Your task to perform on an android device: turn off airplane mode Image 0: 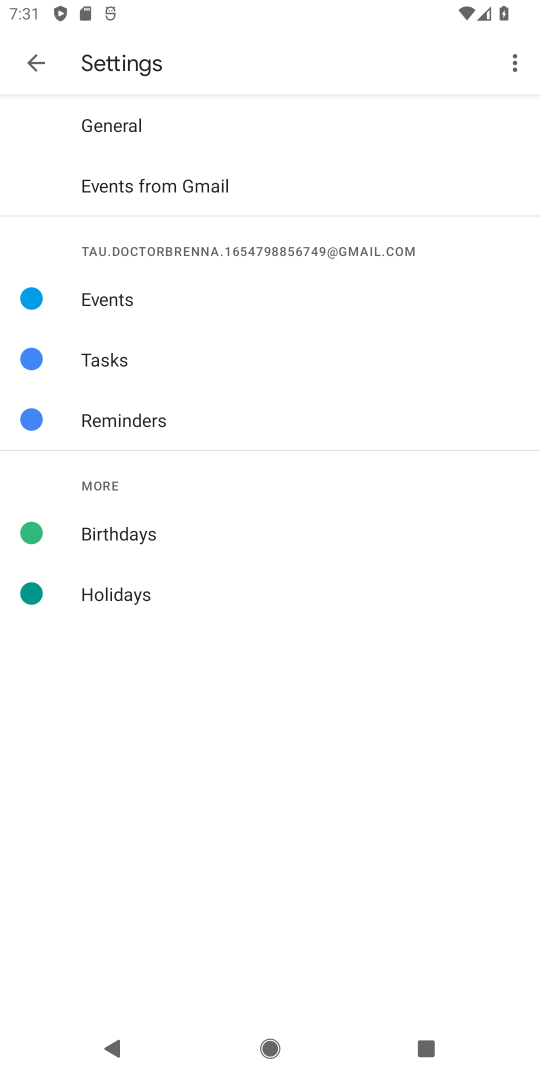
Step 0: press home button
Your task to perform on an android device: turn off airplane mode Image 1: 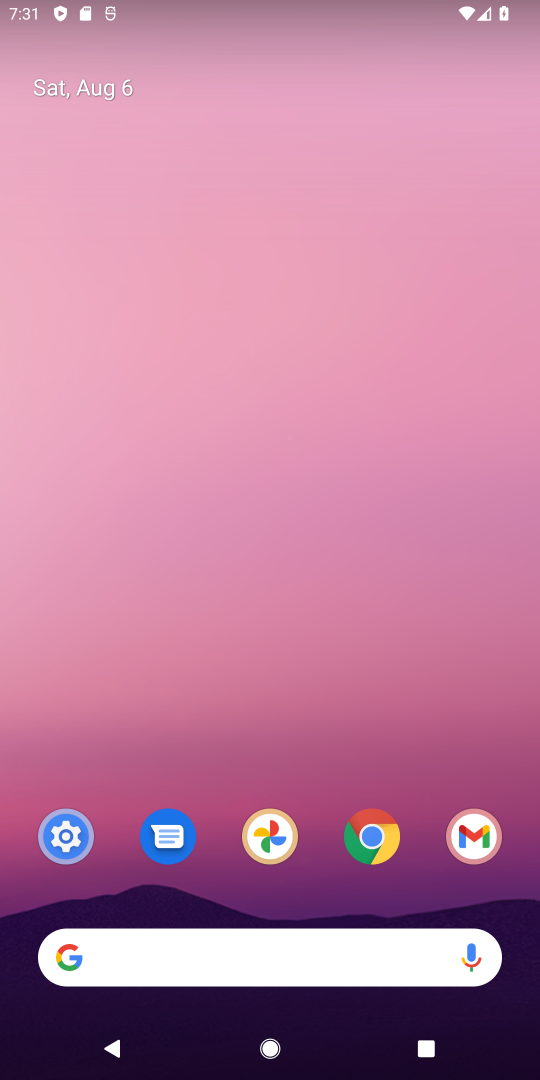
Step 1: task complete